Your task to perform on an android device: Open display settings Image 0: 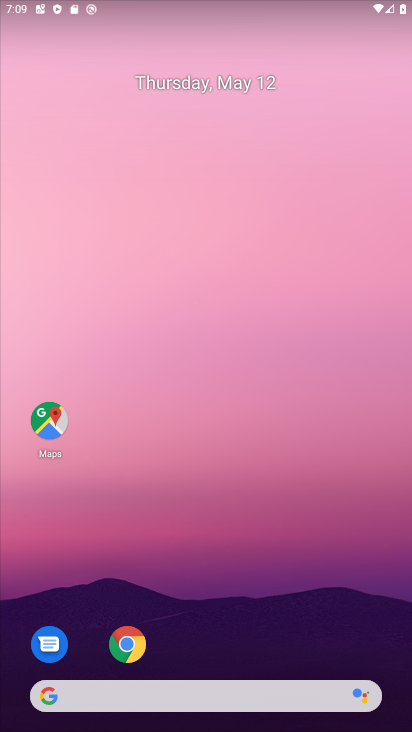
Step 0: drag from (314, 620) to (190, 147)
Your task to perform on an android device: Open display settings Image 1: 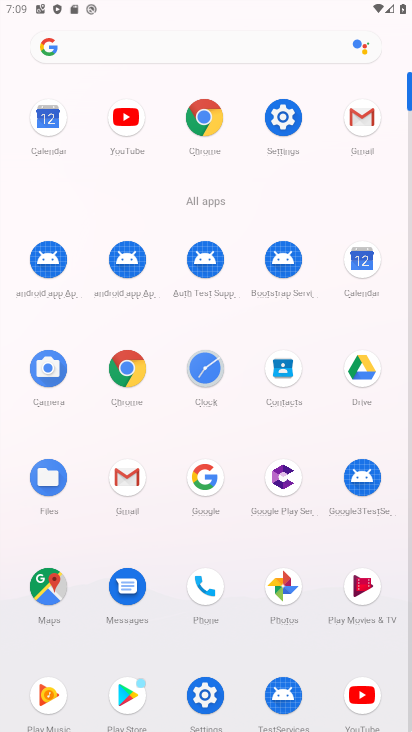
Step 1: click (284, 128)
Your task to perform on an android device: Open display settings Image 2: 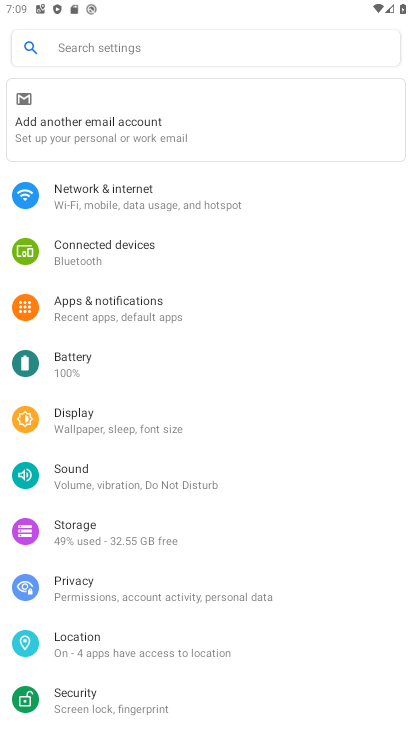
Step 2: click (89, 423)
Your task to perform on an android device: Open display settings Image 3: 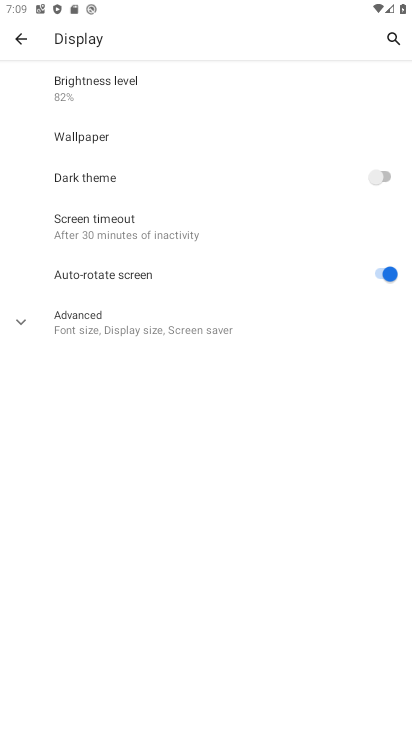
Step 3: task complete